Your task to perform on an android device: toggle notification dots Image 0: 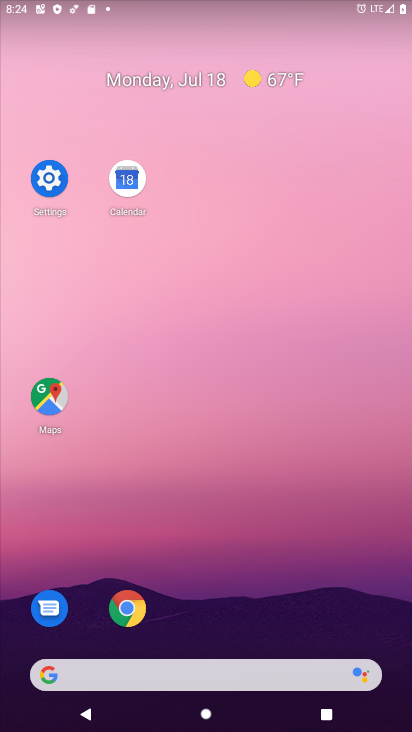
Step 0: click (59, 181)
Your task to perform on an android device: toggle notification dots Image 1: 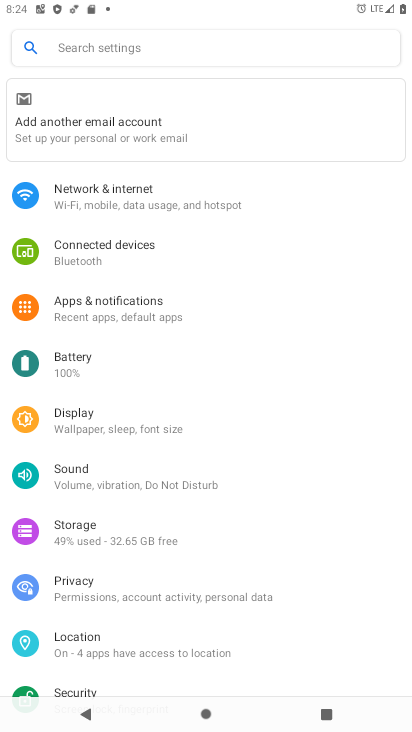
Step 1: click (99, 299)
Your task to perform on an android device: toggle notification dots Image 2: 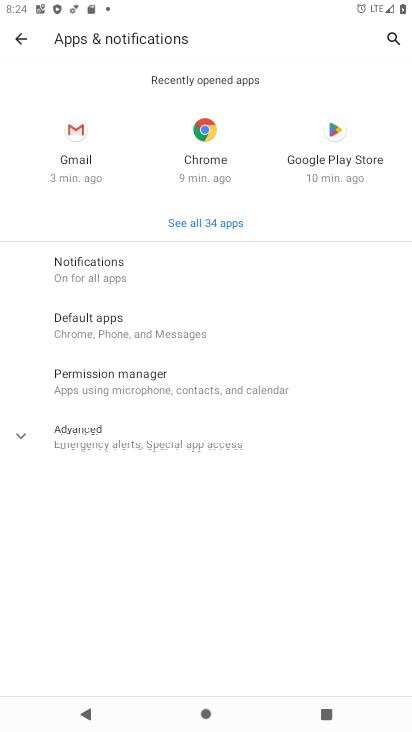
Step 2: click (107, 274)
Your task to perform on an android device: toggle notification dots Image 3: 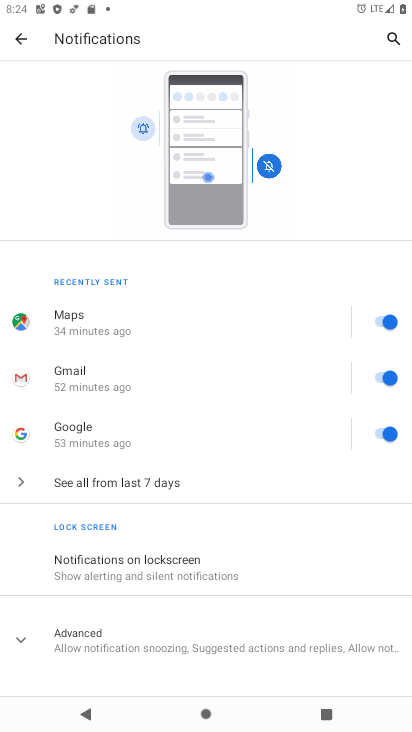
Step 3: drag from (265, 607) to (214, 302)
Your task to perform on an android device: toggle notification dots Image 4: 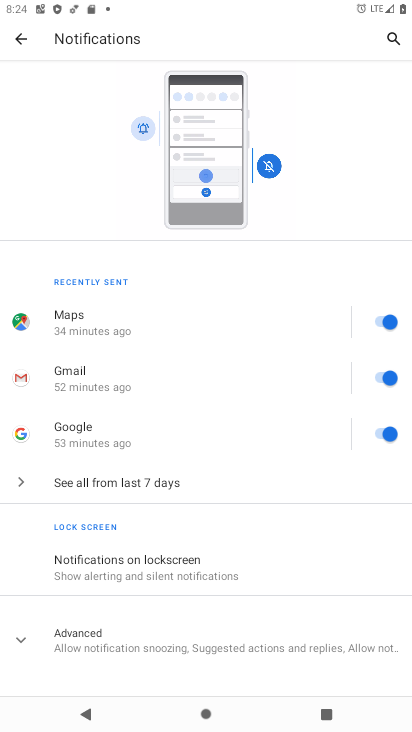
Step 4: click (158, 628)
Your task to perform on an android device: toggle notification dots Image 5: 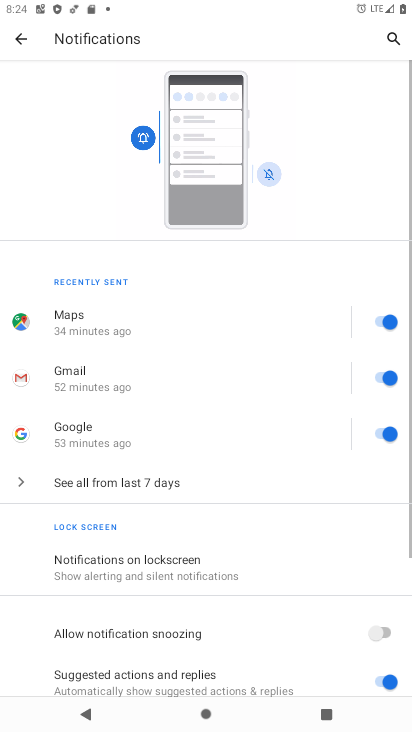
Step 5: drag from (158, 627) to (165, 256)
Your task to perform on an android device: toggle notification dots Image 6: 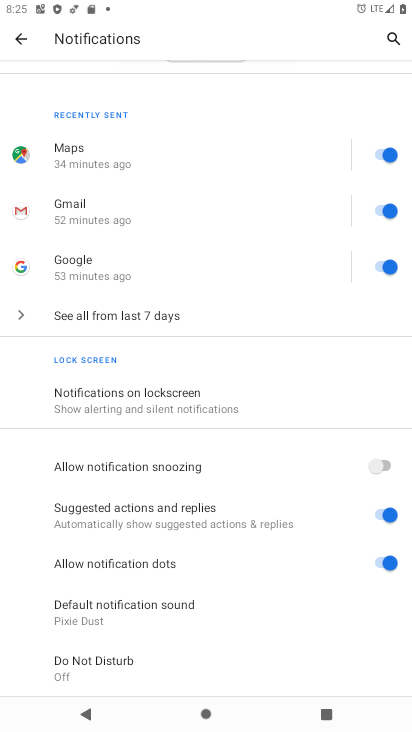
Step 6: click (381, 560)
Your task to perform on an android device: toggle notification dots Image 7: 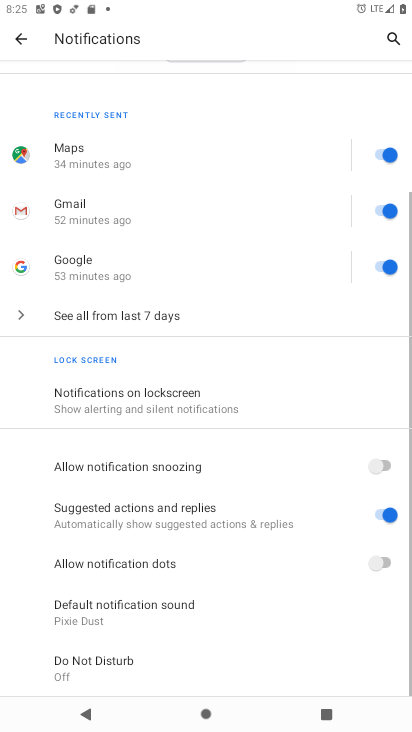
Step 7: task complete